Your task to perform on an android device: turn off location Image 0: 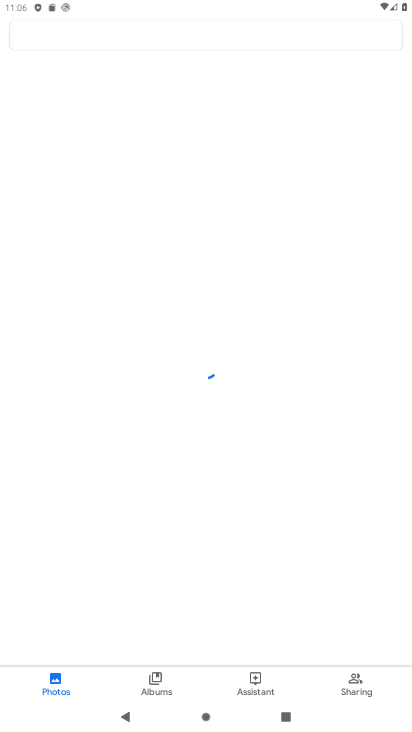
Step 0: press home button
Your task to perform on an android device: turn off location Image 1: 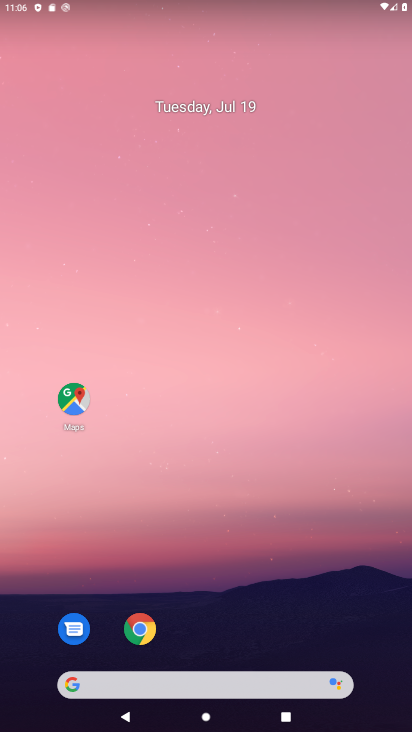
Step 1: drag from (283, 626) to (270, 49)
Your task to perform on an android device: turn off location Image 2: 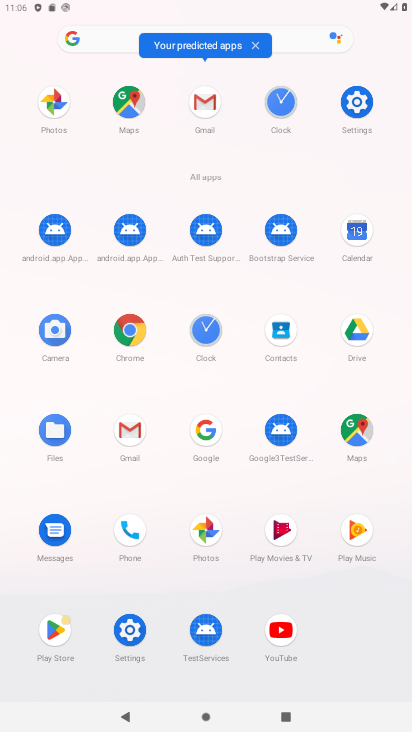
Step 2: click (364, 105)
Your task to perform on an android device: turn off location Image 3: 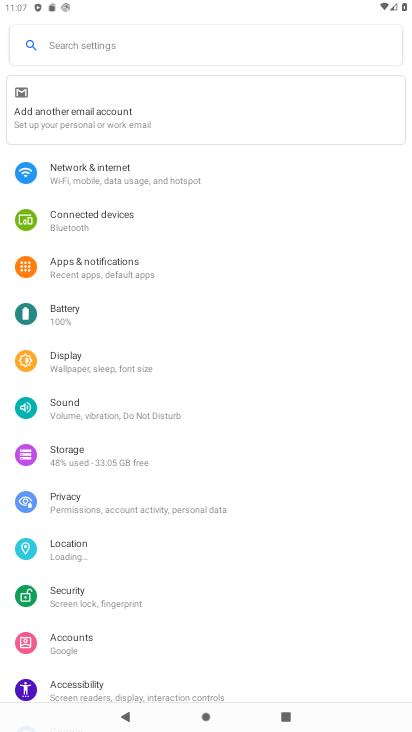
Step 3: click (84, 556)
Your task to perform on an android device: turn off location Image 4: 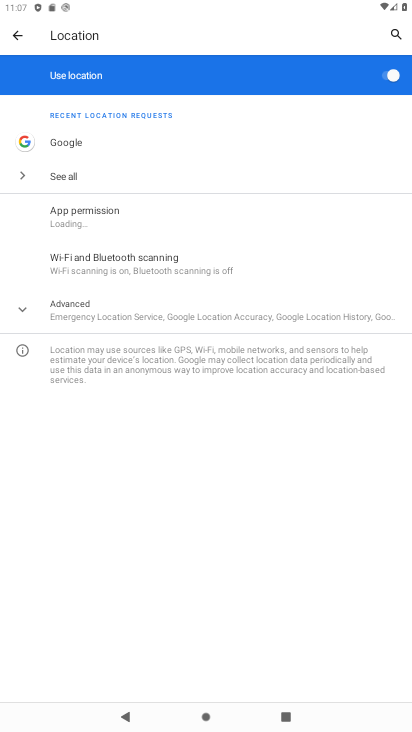
Step 4: click (385, 75)
Your task to perform on an android device: turn off location Image 5: 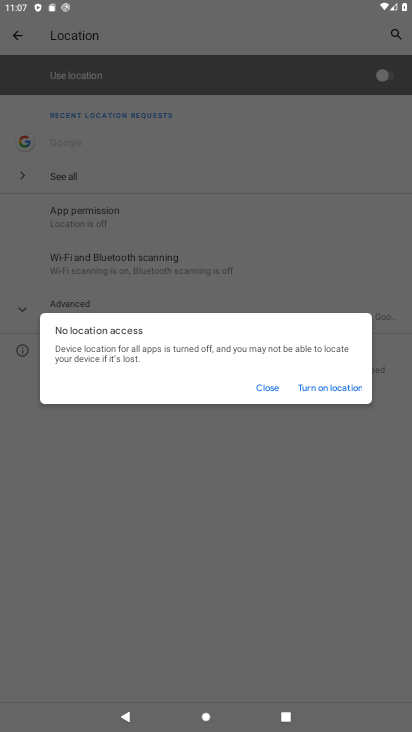
Step 5: task complete